Your task to perform on an android device: open device folders in google photos Image 0: 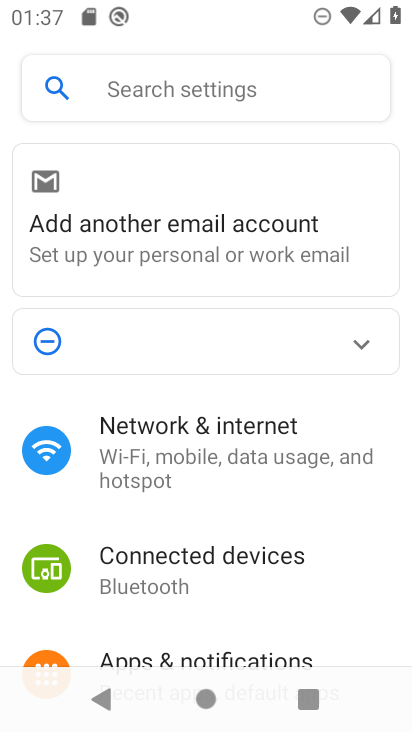
Step 0: press home button
Your task to perform on an android device: open device folders in google photos Image 1: 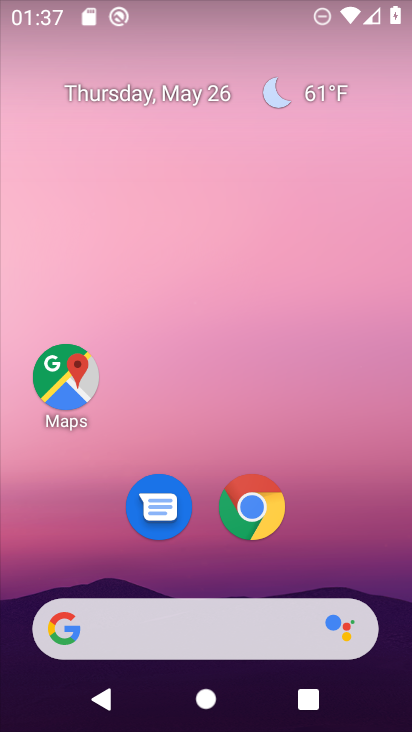
Step 1: drag from (351, 525) to (343, 126)
Your task to perform on an android device: open device folders in google photos Image 2: 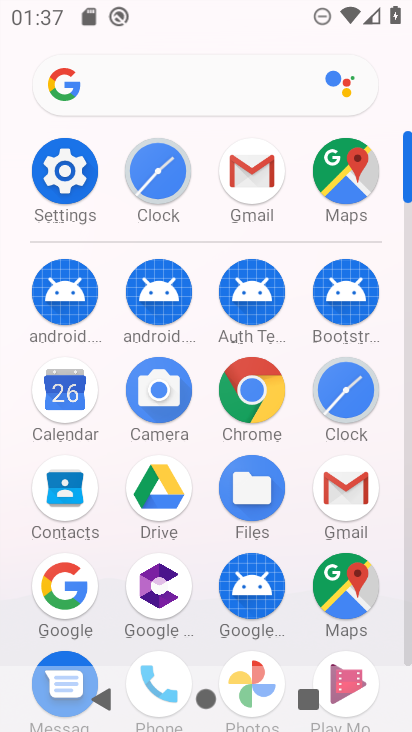
Step 2: click (239, 658)
Your task to perform on an android device: open device folders in google photos Image 3: 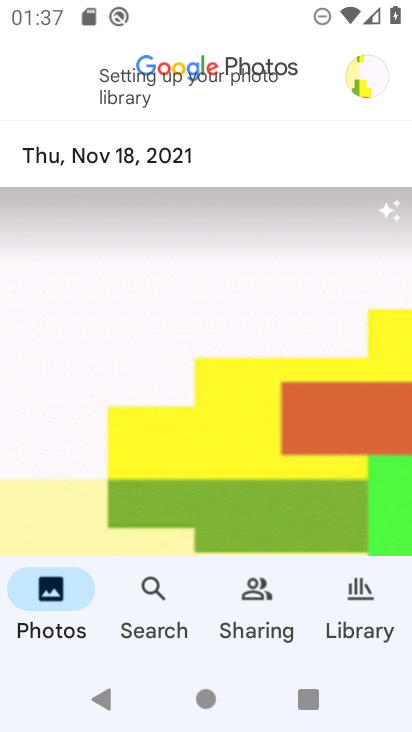
Step 3: click (354, 613)
Your task to perform on an android device: open device folders in google photos Image 4: 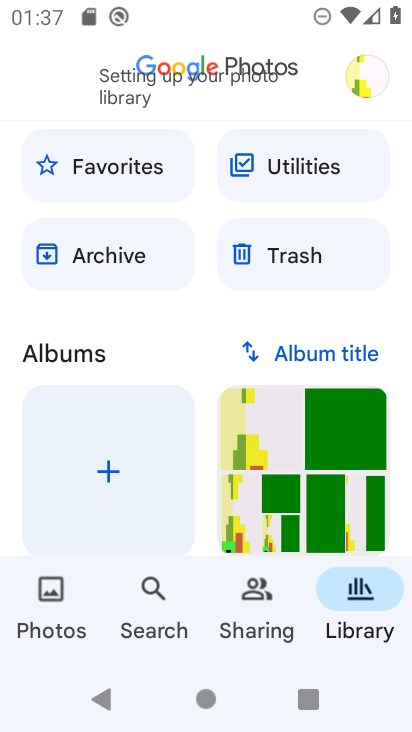
Step 4: click (336, 162)
Your task to perform on an android device: open device folders in google photos Image 5: 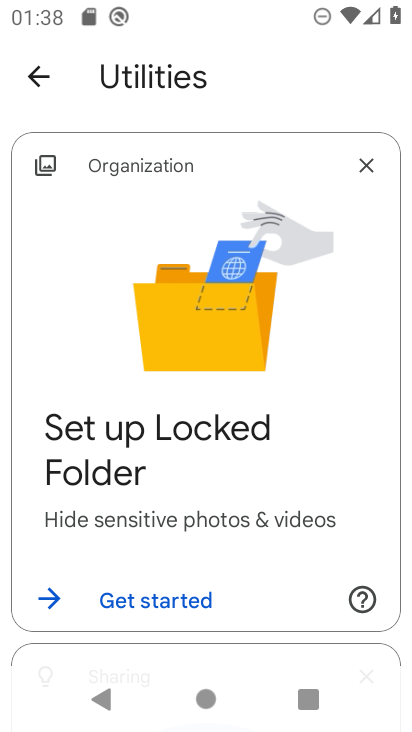
Step 5: task complete